Your task to perform on an android device: Open Google Image 0: 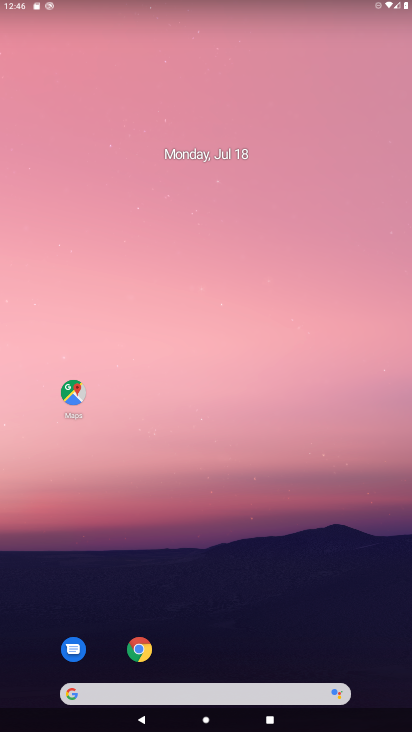
Step 0: click (104, 691)
Your task to perform on an android device: Open Google Image 1: 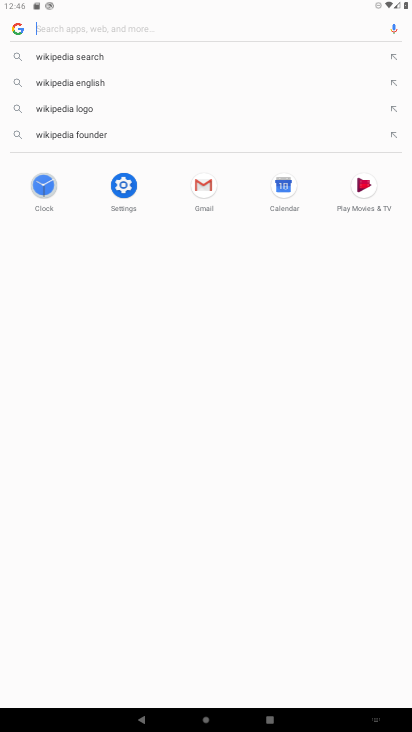
Step 1: task complete